Your task to perform on an android device: toggle data saver in the chrome app Image 0: 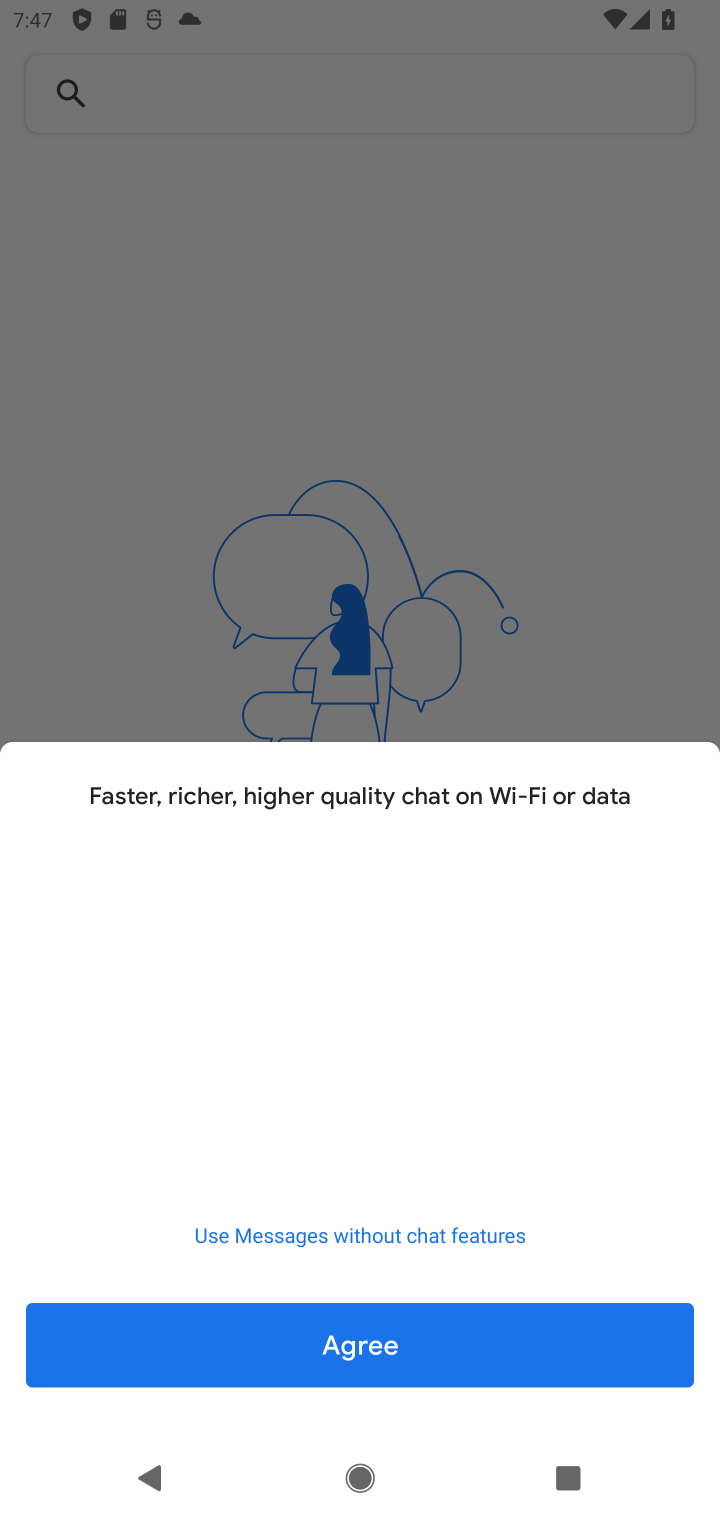
Step 0: press home button
Your task to perform on an android device: toggle data saver in the chrome app Image 1: 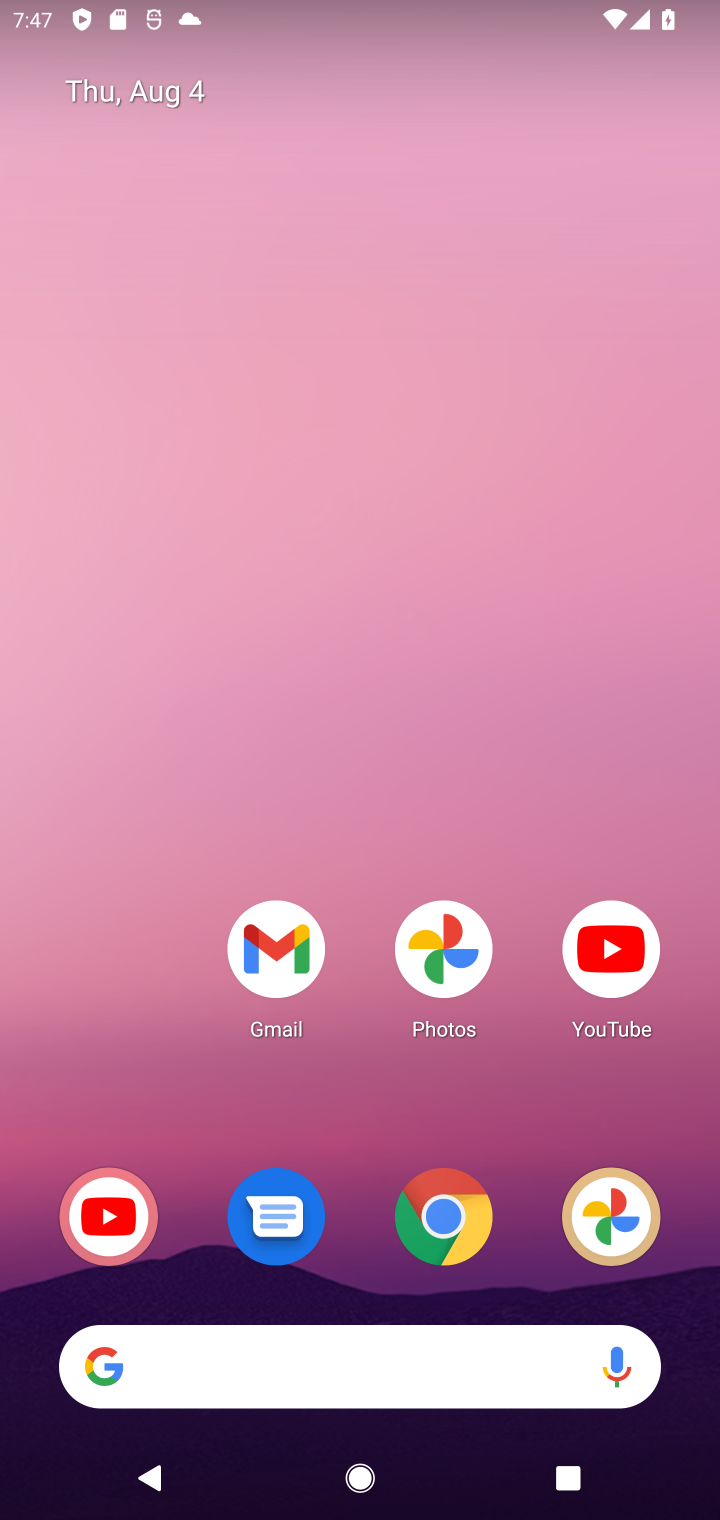
Step 1: press home button
Your task to perform on an android device: toggle data saver in the chrome app Image 2: 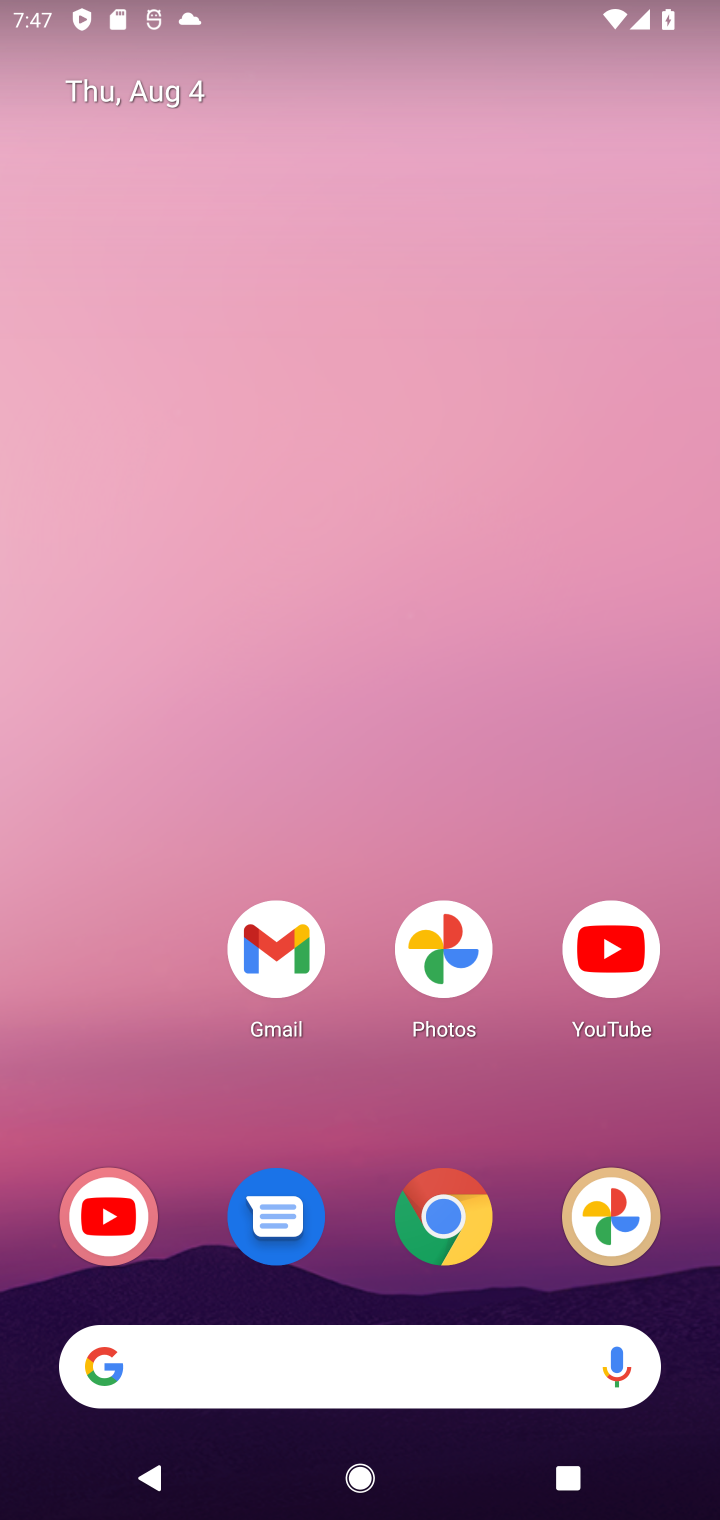
Step 2: click (450, 1220)
Your task to perform on an android device: toggle data saver in the chrome app Image 3: 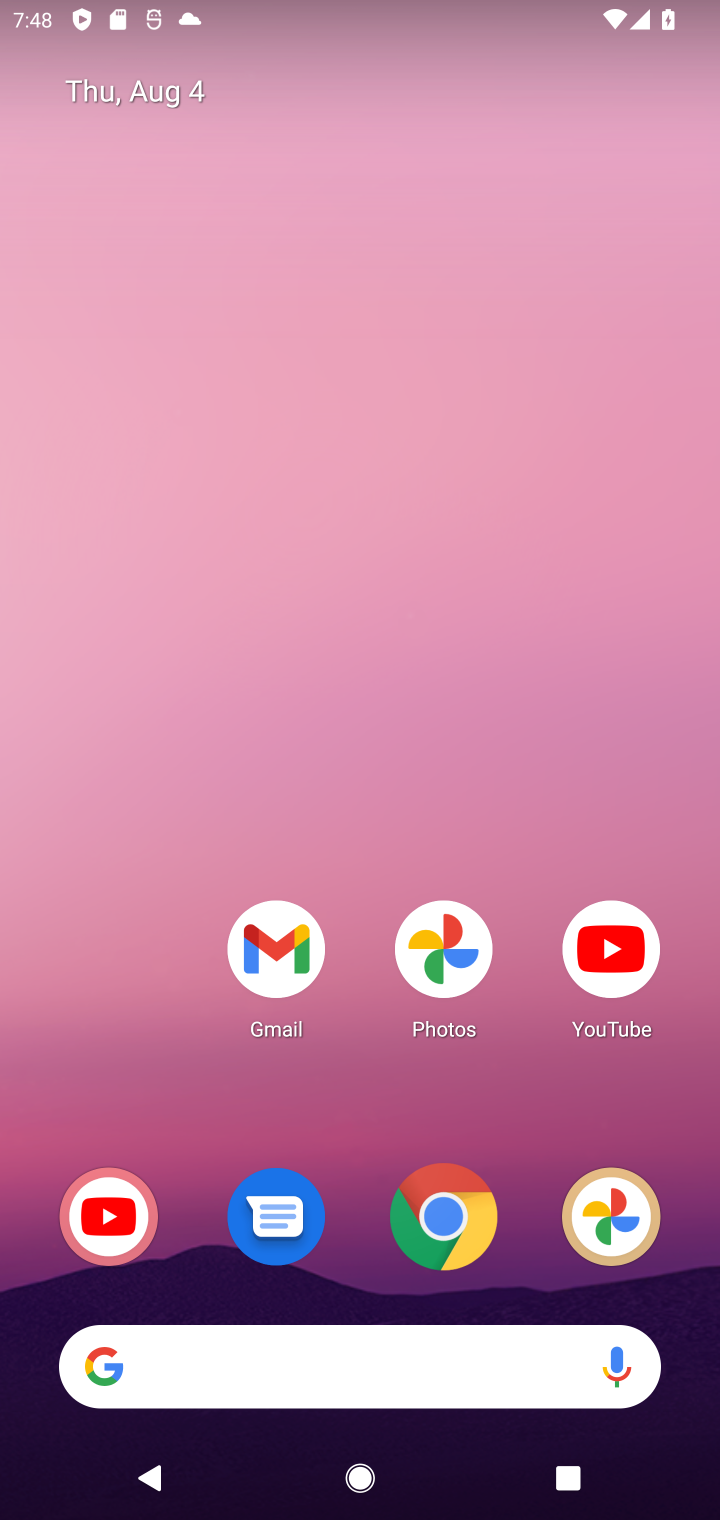
Step 3: click (450, 1220)
Your task to perform on an android device: toggle data saver in the chrome app Image 4: 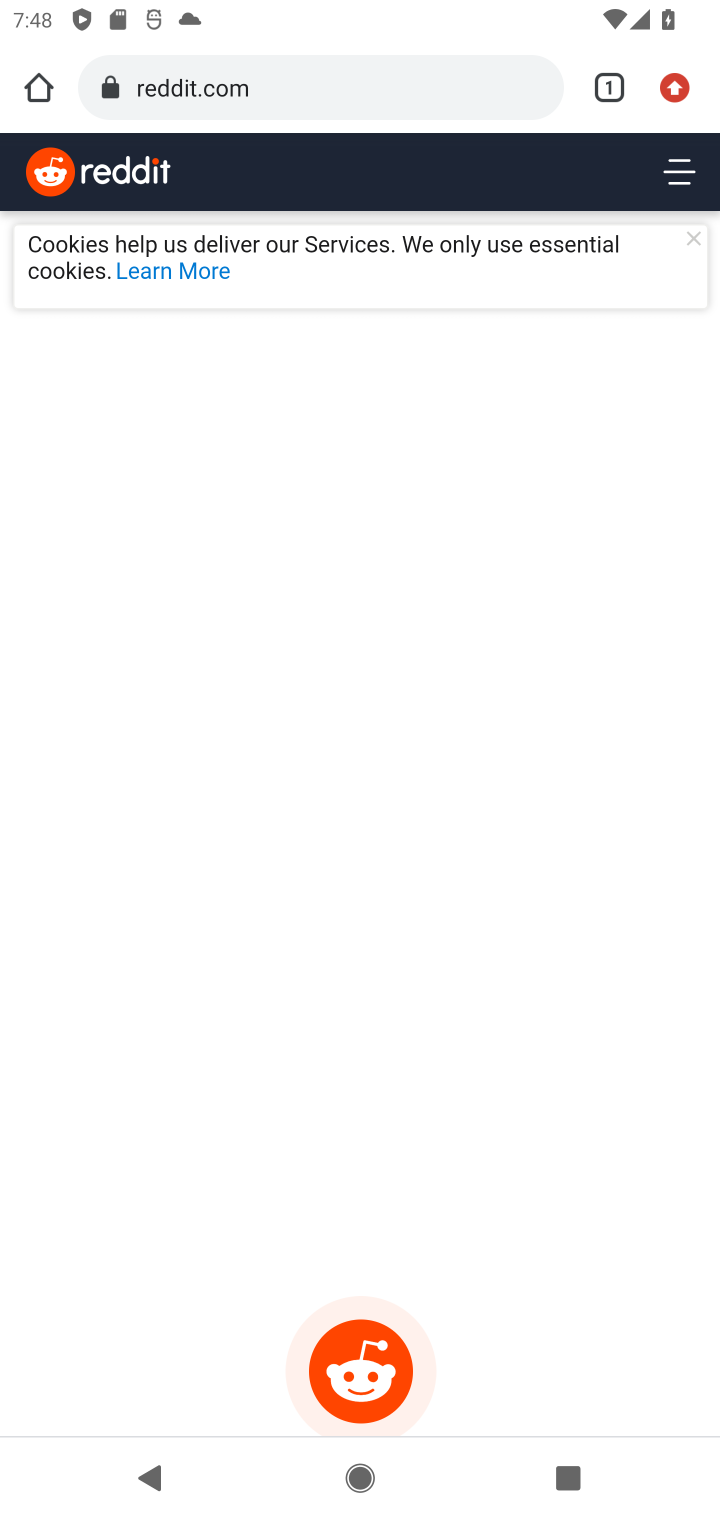
Step 4: click (678, 100)
Your task to perform on an android device: toggle data saver in the chrome app Image 5: 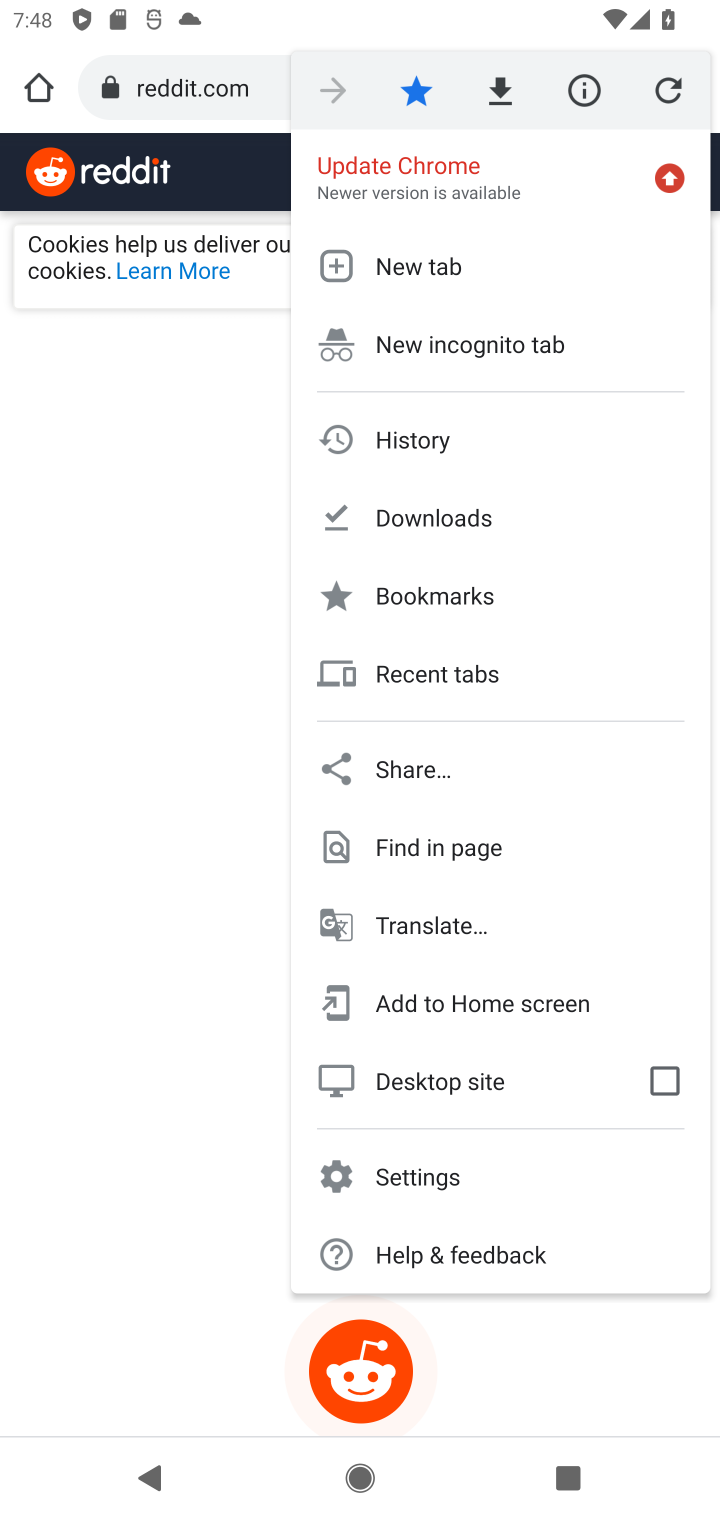
Step 5: click (398, 1161)
Your task to perform on an android device: toggle data saver in the chrome app Image 6: 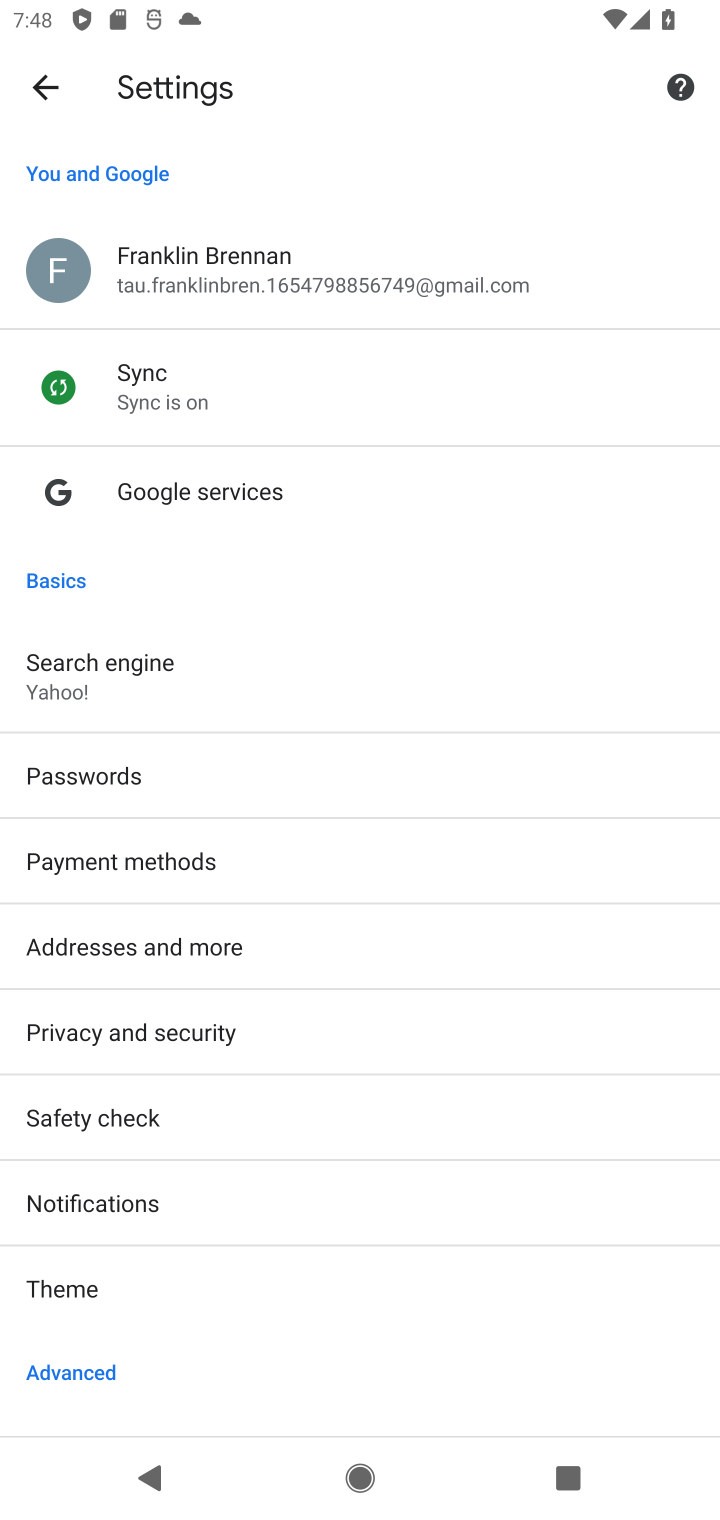
Step 6: drag from (211, 1341) to (229, 687)
Your task to perform on an android device: toggle data saver in the chrome app Image 7: 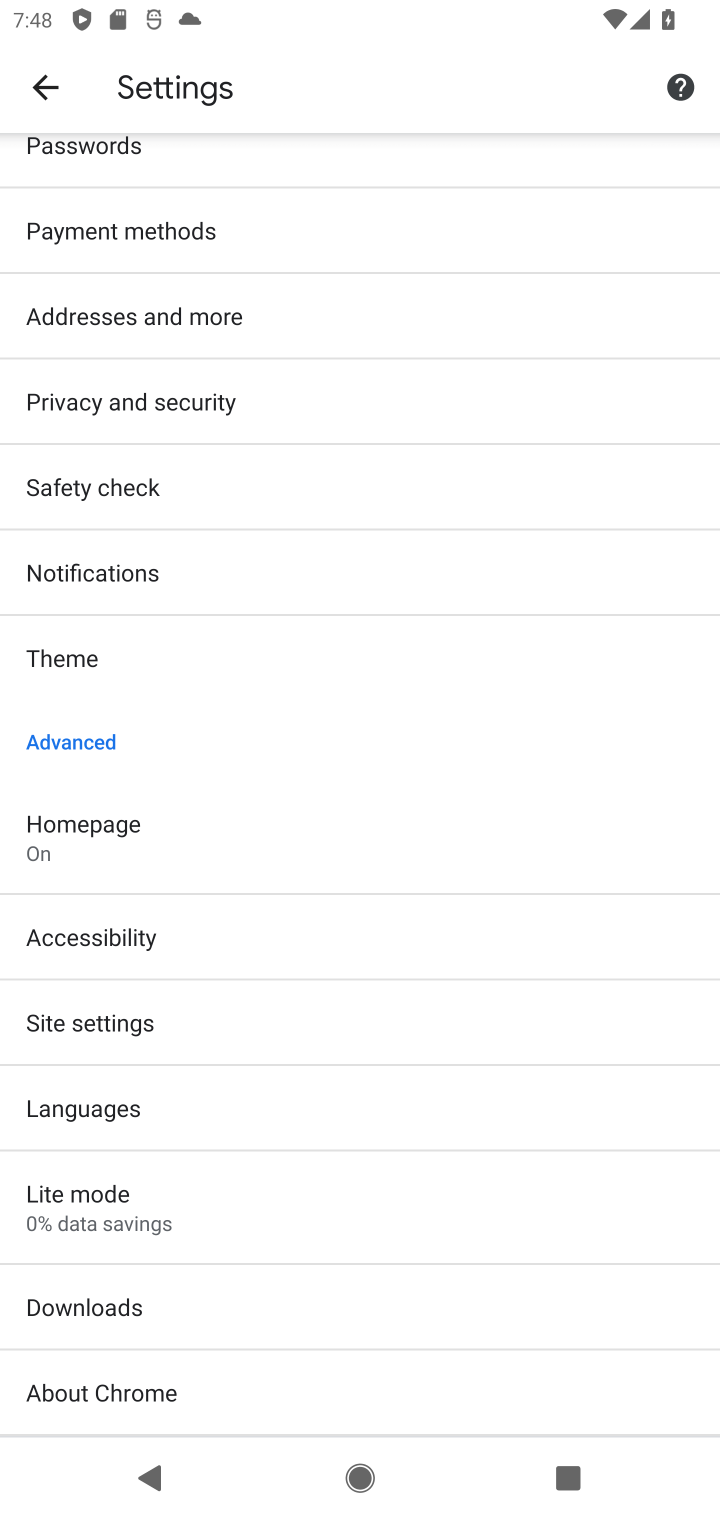
Step 7: click (85, 1198)
Your task to perform on an android device: toggle data saver in the chrome app Image 8: 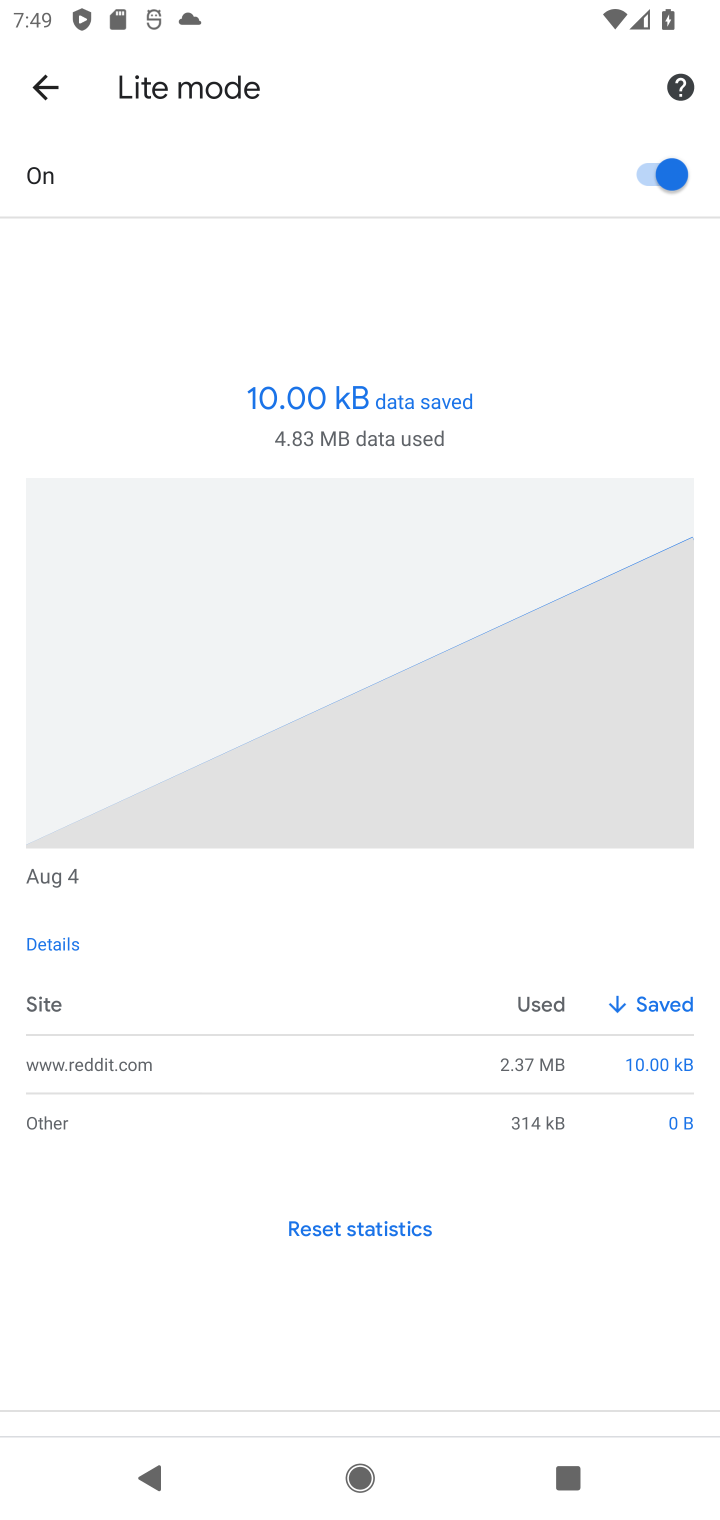
Step 8: click (646, 167)
Your task to perform on an android device: toggle data saver in the chrome app Image 9: 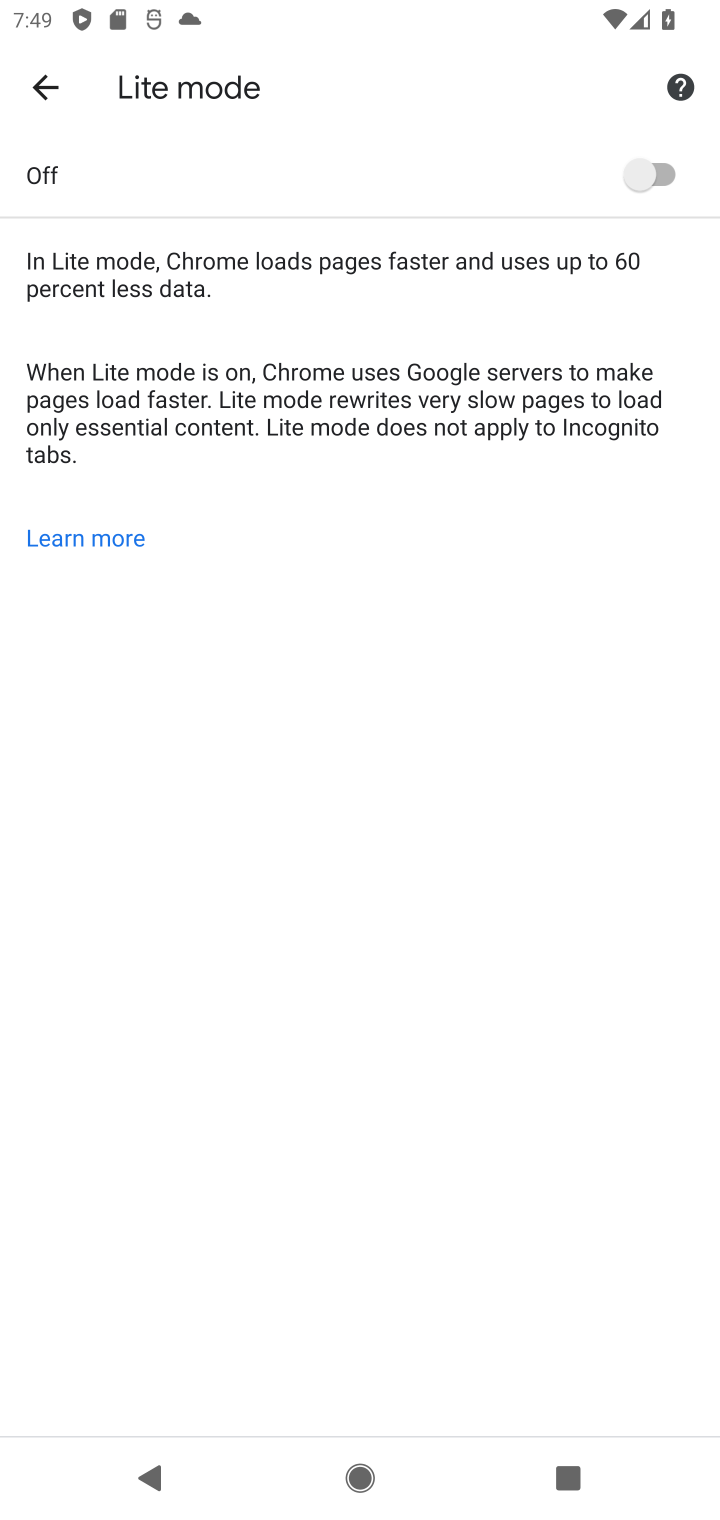
Step 9: task complete